Your task to perform on an android device: Set the phone to "Do not disturb". Image 0: 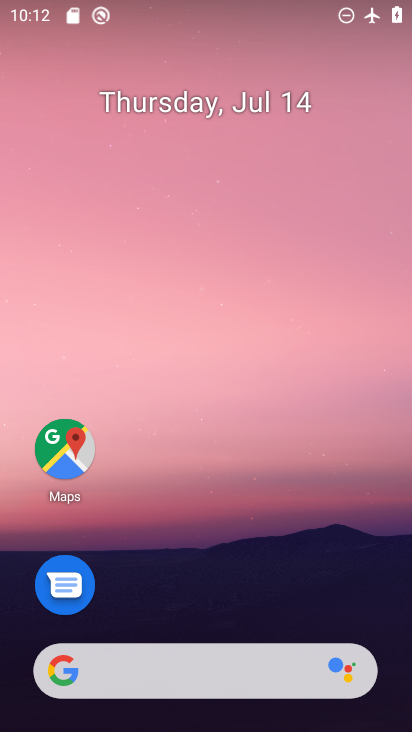
Step 0: drag from (231, 618) to (126, 1)
Your task to perform on an android device: Set the phone to "Do not disturb". Image 1: 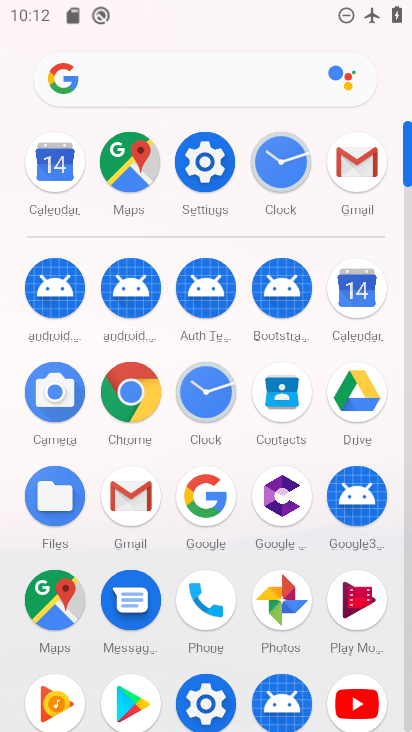
Step 1: task complete